Your task to perform on an android device: Go to sound settings Image 0: 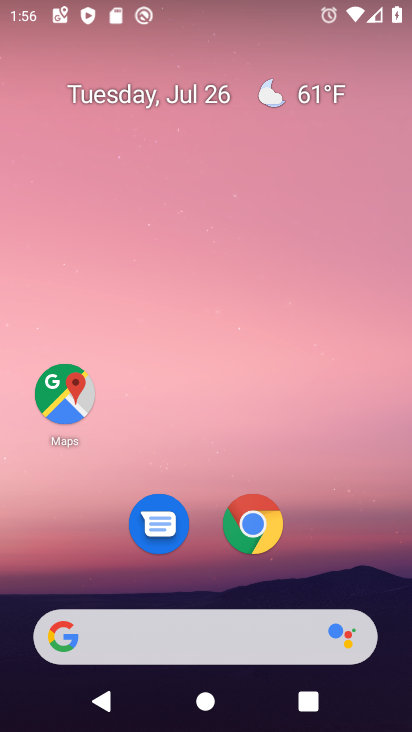
Step 0: press home button
Your task to perform on an android device: Go to sound settings Image 1: 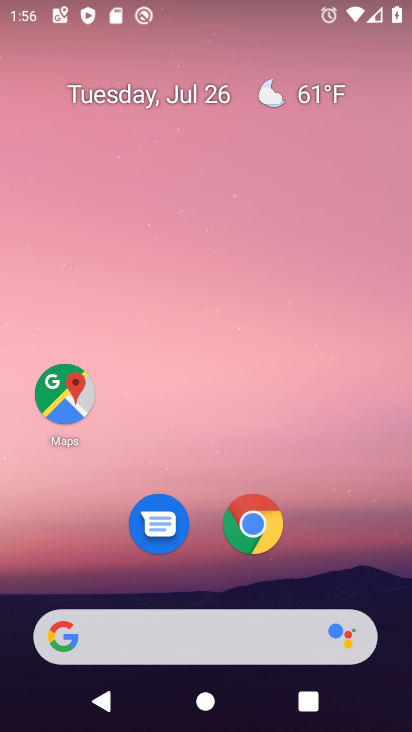
Step 1: drag from (195, 639) to (327, 80)
Your task to perform on an android device: Go to sound settings Image 2: 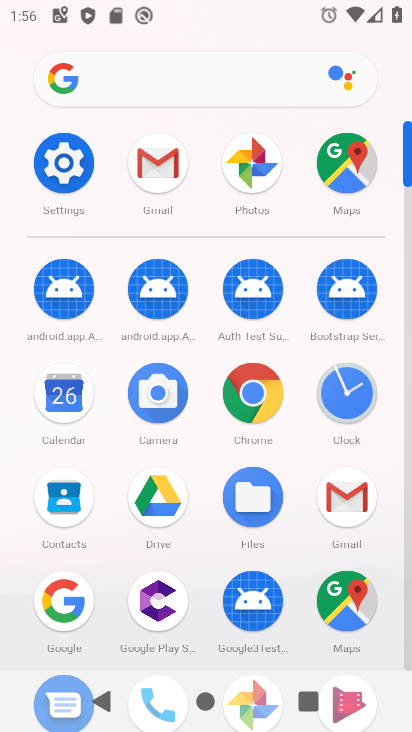
Step 2: click (65, 168)
Your task to perform on an android device: Go to sound settings Image 3: 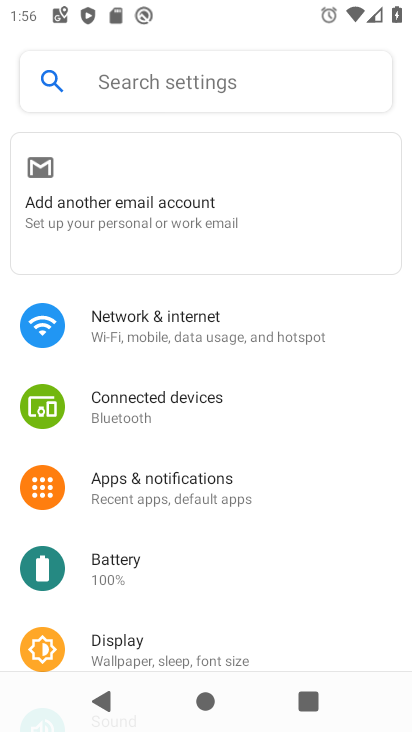
Step 3: drag from (238, 574) to (369, 160)
Your task to perform on an android device: Go to sound settings Image 4: 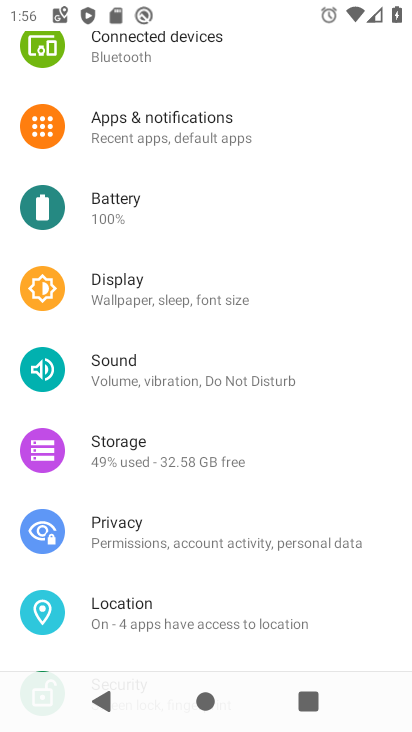
Step 4: click (162, 378)
Your task to perform on an android device: Go to sound settings Image 5: 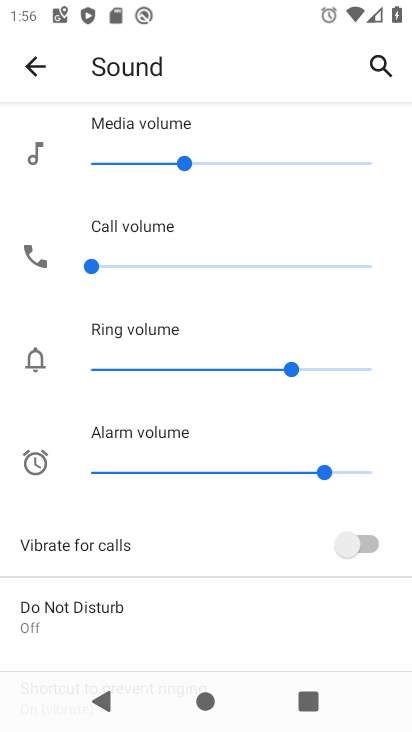
Step 5: task complete